Your task to perform on an android device: turn pop-ups on in chrome Image 0: 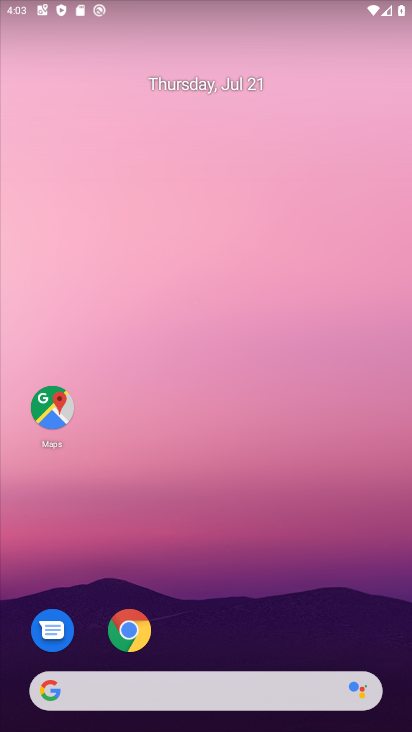
Step 0: click (129, 681)
Your task to perform on an android device: turn pop-ups on in chrome Image 1: 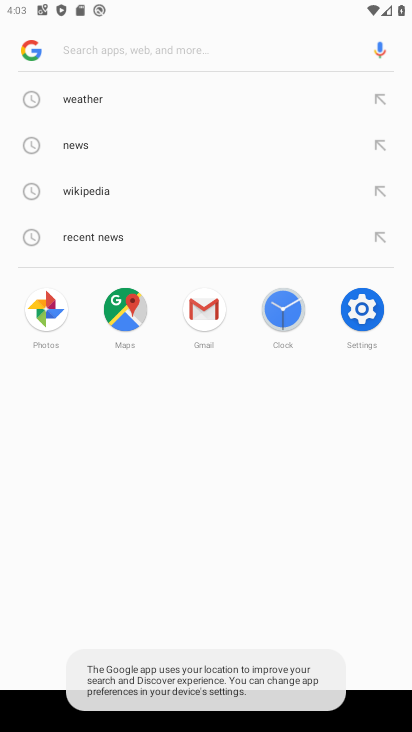
Step 1: press home button
Your task to perform on an android device: turn pop-ups on in chrome Image 2: 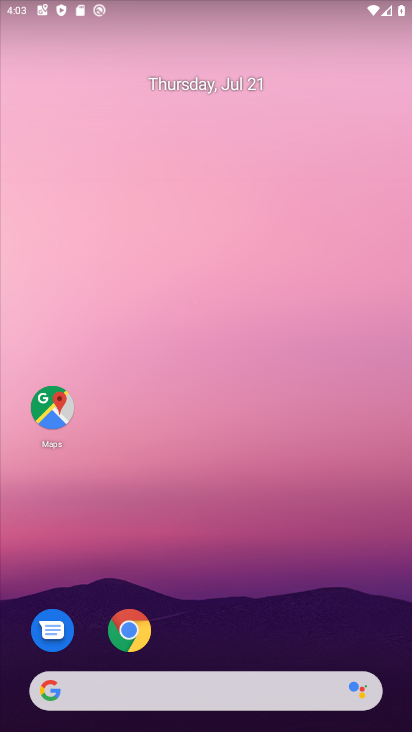
Step 2: click (131, 621)
Your task to perform on an android device: turn pop-ups on in chrome Image 3: 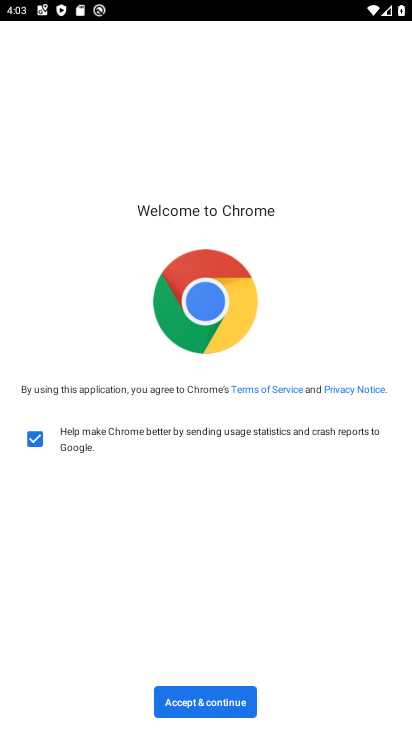
Step 3: click (187, 696)
Your task to perform on an android device: turn pop-ups on in chrome Image 4: 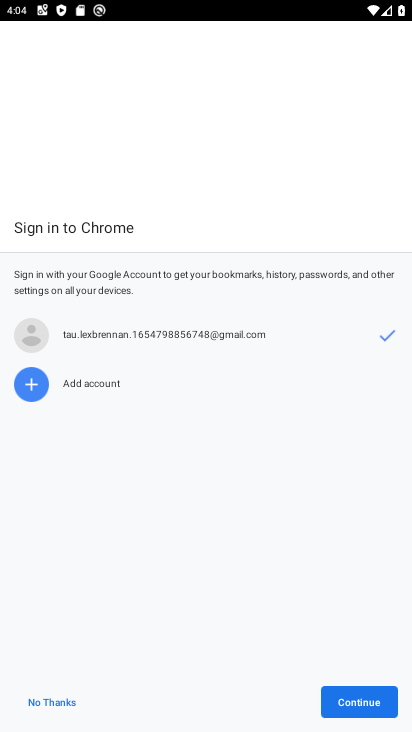
Step 4: click (336, 705)
Your task to perform on an android device: turn pop-ups on in chrome Image 5: 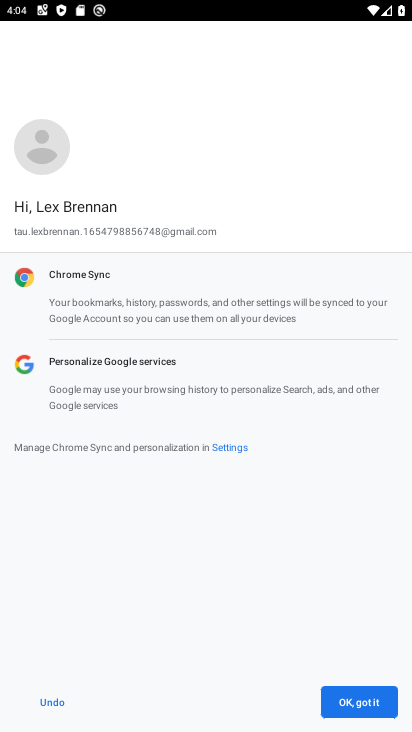
Step 5: click (350, 697)
Your task to perform on an android device: turn pop-ups on in chrome Image 6: 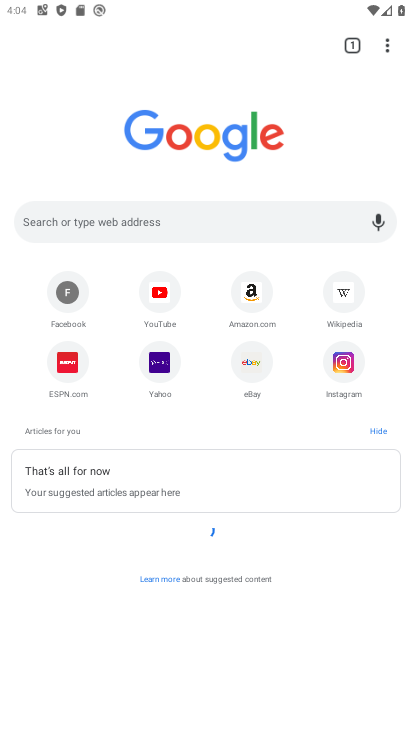
Step 6: click (390, 43)
Your task to perform on an android device: turn pop-ups on in chrome Image 7: 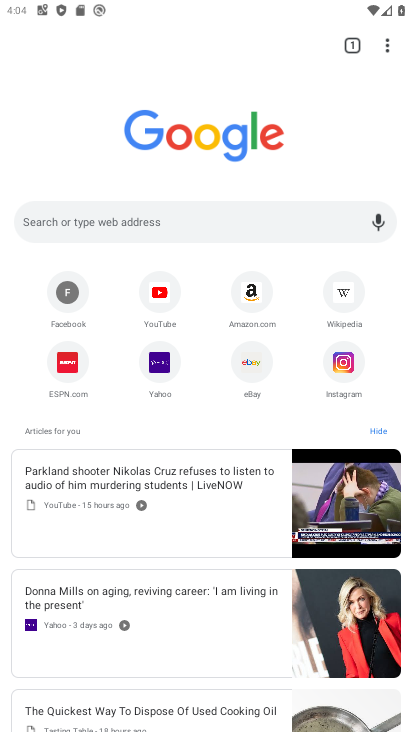
Step 7: click (386, 49)
Your task to perform on an android device: turn pop-ups on in chrome Image 8: 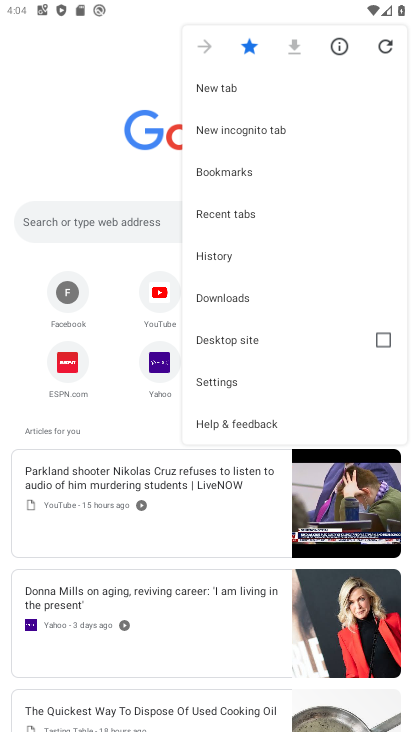
Step 8: click (220, 385)
Your task to perform on an android device: turn pop-ups on in chrome Image 9: 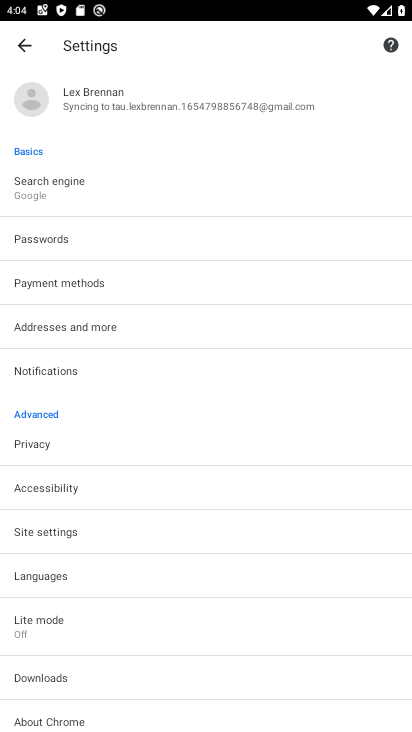
Step 9: click (47, 544)
Your task to perform on an android device: turn pop-ups on in chrome Image 10: 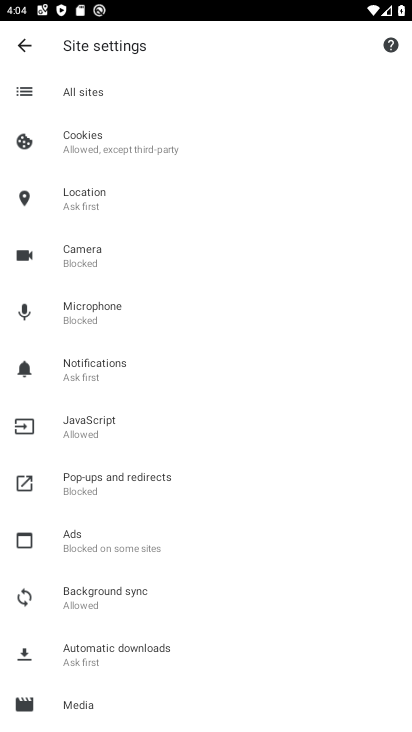
Step 10: click (104, 474)
Your task to perform on an android device: turn pop-ups on in chrome Image 11: 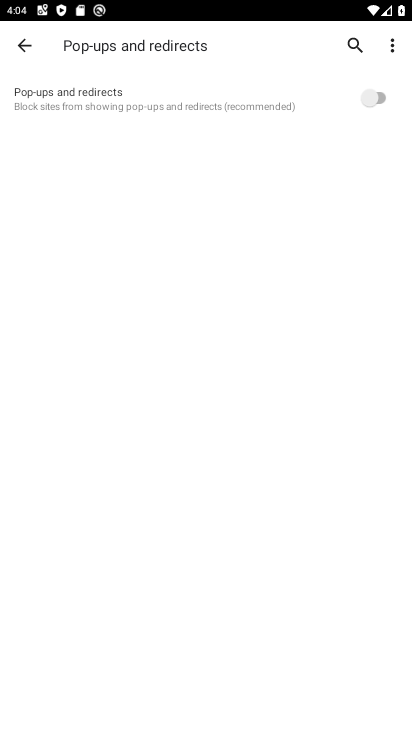
Step 11: click (374, 98)
Your task to perform on an android device: turn pop-ups on in chrome Image 12: 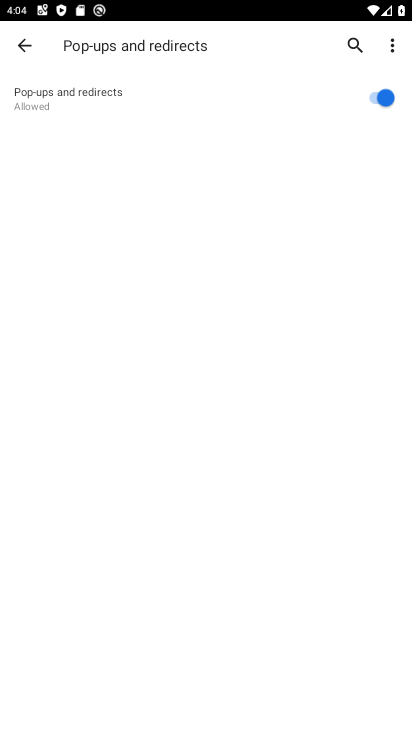
Step 12: task complete